Your task to perform on an android device: create a new album in the google photos Image 0: 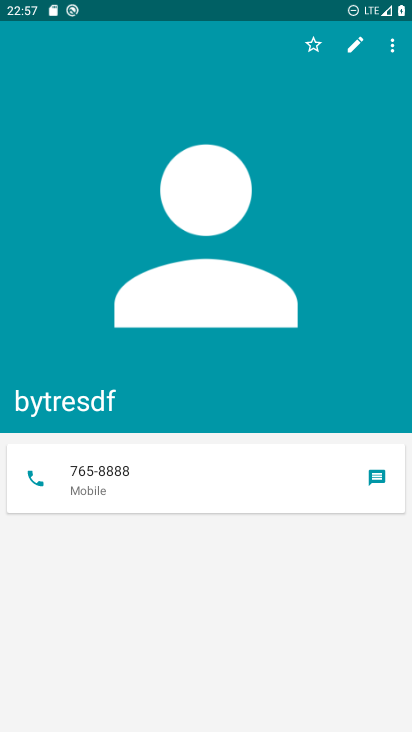
Step 0: press home button
Your task to perform on an android device: create a new album in the google photos Image 1: 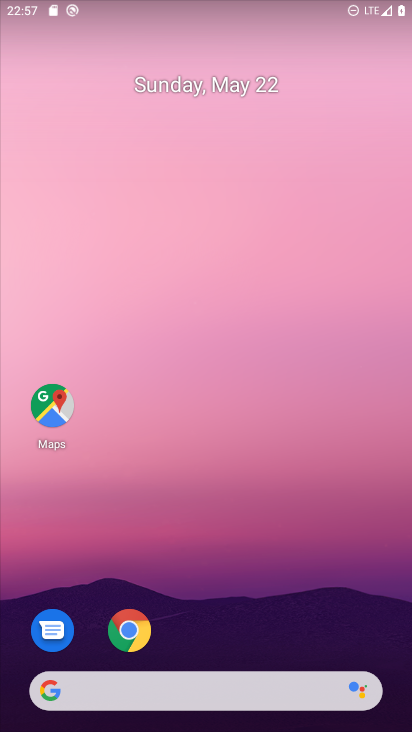
Step 1: drag from (155, 684) to (373, 104)
Your task to perform on an android device: create a new album in the google photos Image 2: 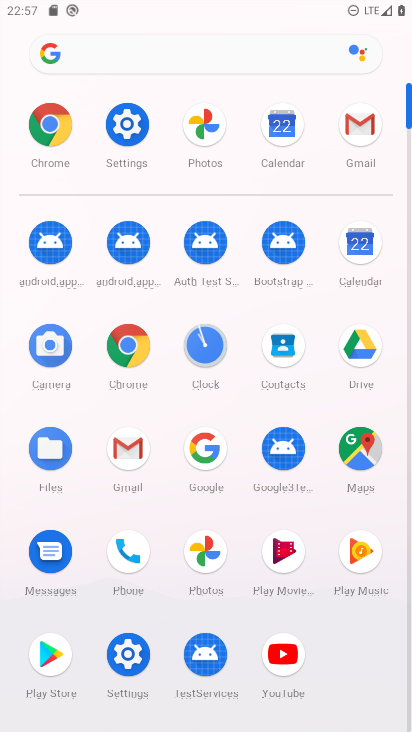
Step 2: click (199, 556)
Your task to perform on an android device: create a new album in the google photos Image 3: 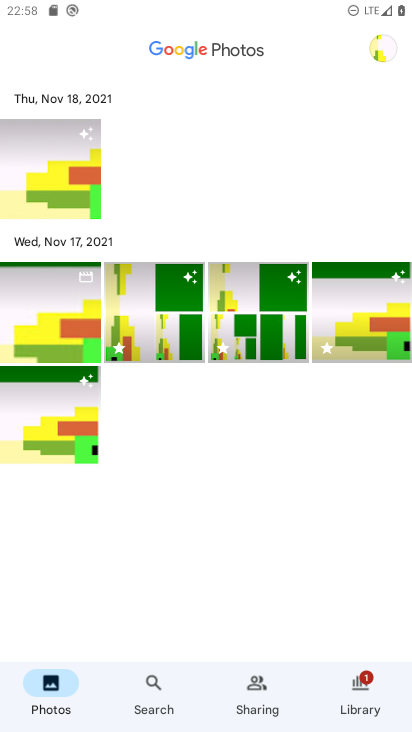
Step 3: click (358, 702)
Your task to perform on an android device: create a new album in the google photos Image 4: 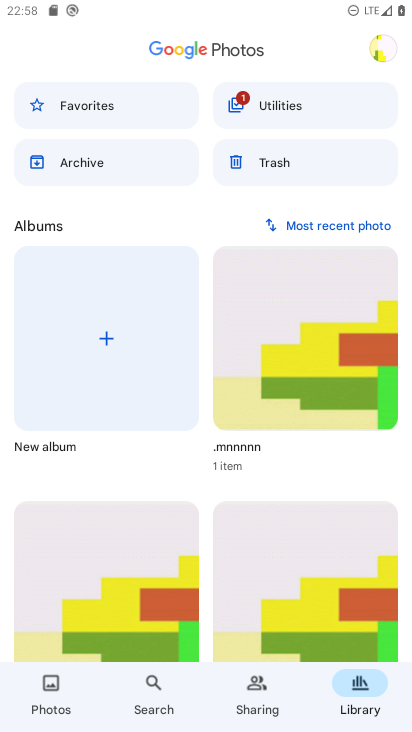
Step 4: click (109, 336)
Your task to perform on an android device: create a new album in the google photos Image 5: 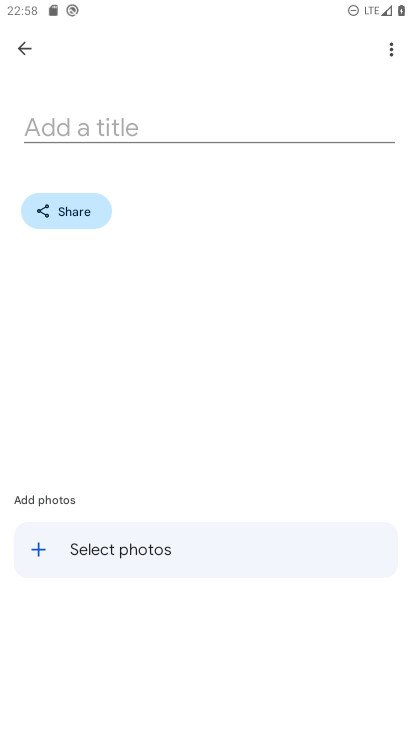
Step 5: click (156, 553)
Your task to perform on an android device: create a new album in the google photos Image 6: 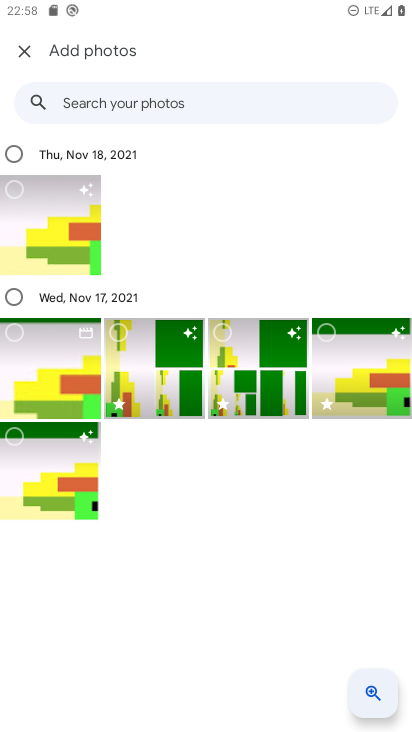
Step 6: click (36, 214)
Your task to perform on an android device: create a new album in the google photos Image 7: 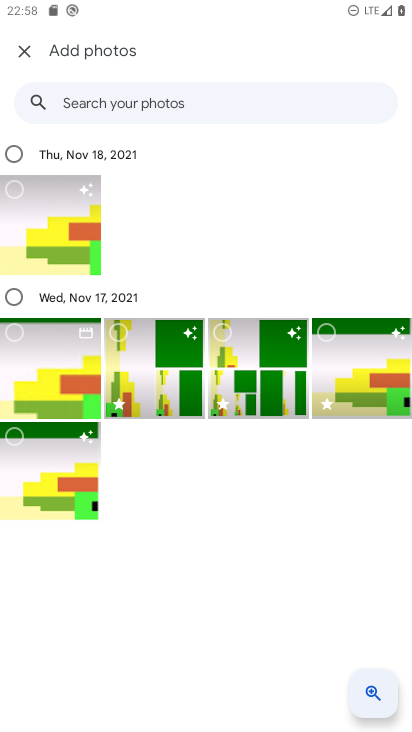
Step 7: click (16, 373)
Your task to perform on an android device: create a new album in the google photos Image 8: 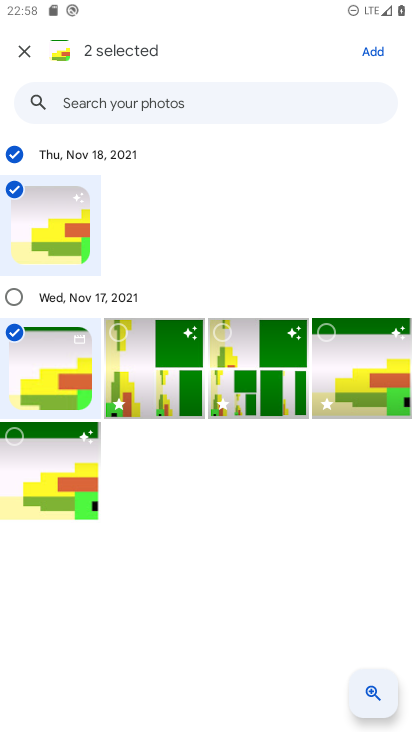
Step 8: click (217, 350)
Your task to perform on an android device: create a new album in the google photos Image 9: 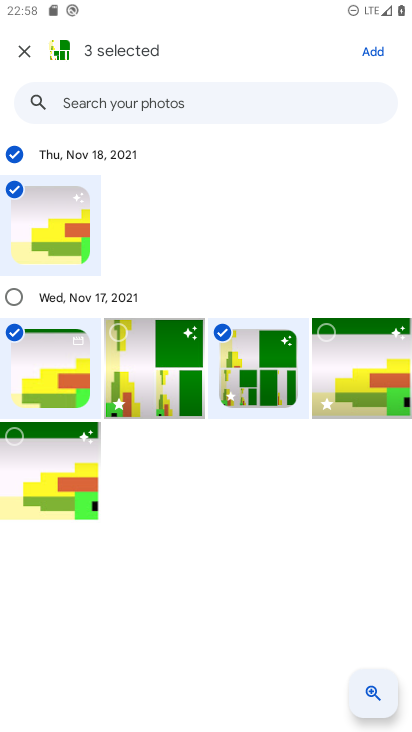
Step 9: click (124, 368)
Your task to perform on an android device: create a new album in the google photos Image 10: 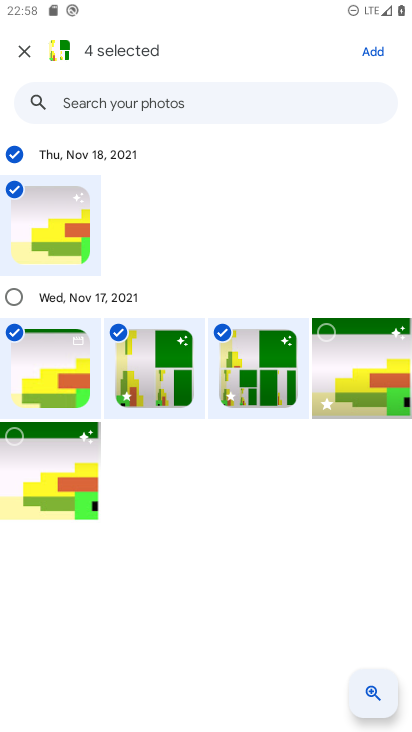
Step 10: click (374, 53)
Your task to perform on an android device: create a new album in the google photos Image 11: 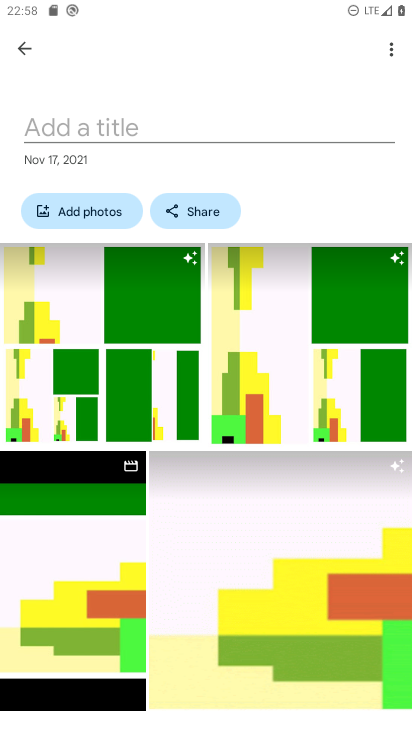
Step 11: task complete